Your task to perform on an android device: Open Youtube and go to "Your channel" Image 0: 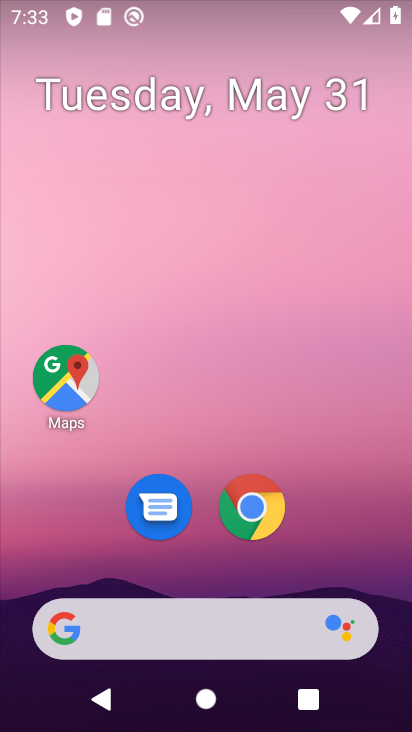
Step 0: drag from (349, 550) to (295, 193)
Your task to perform on an android device: Open Youtube and go to "Your channel" Image 1: 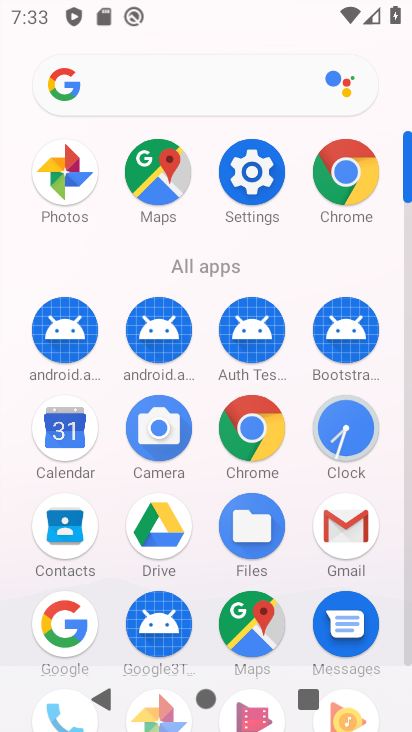
Step 1: drag from (309, 590) to (378, 195)
Your task to perform on an android device: Open Youtube and go to "Your channel" Image 2: 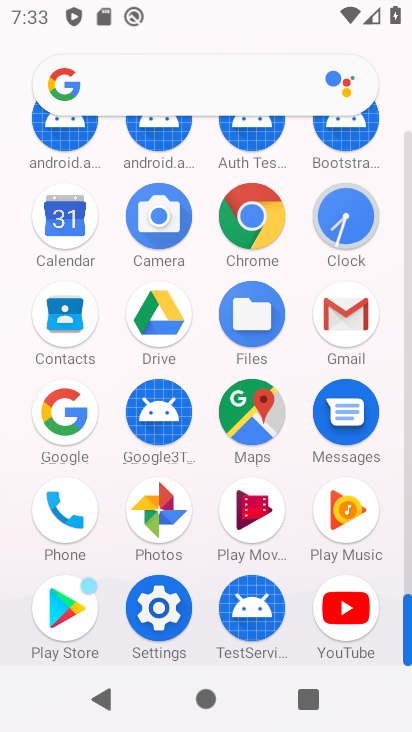
Step 2: click (358, 616)
Your task to perform on an android device: Open Youtube and go to "Your channel" Image 3: 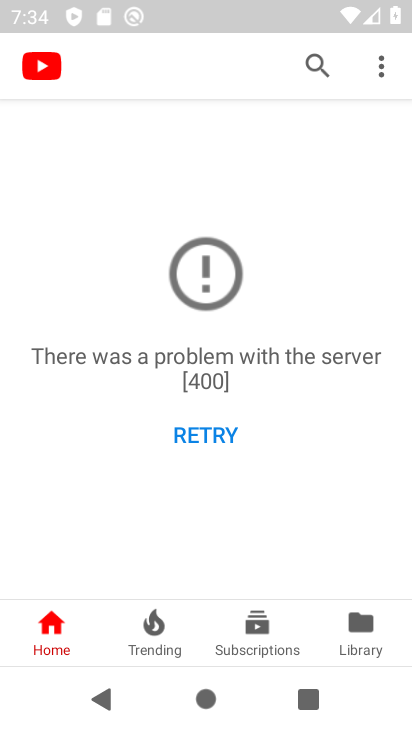
Step 3: click (221, 433)
Your task to perform on an android device: Open Youtube and go to "Your channel" Image 4: 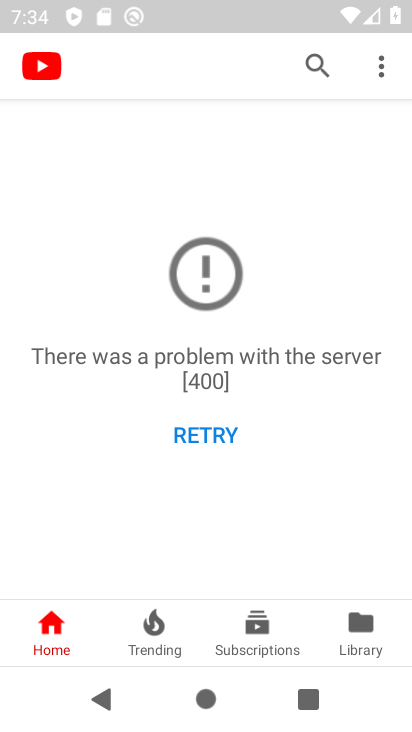
Step 4: task complete